Your task to perform on an android device: When is my next appointment? Image 0: 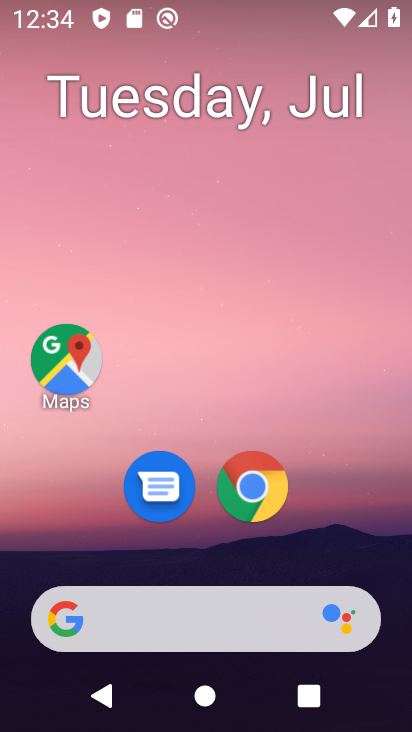
Step 0: drag from (329, 556) to (386, 83)
Your task to perform on an android device: When is my next appointment? Image 1: 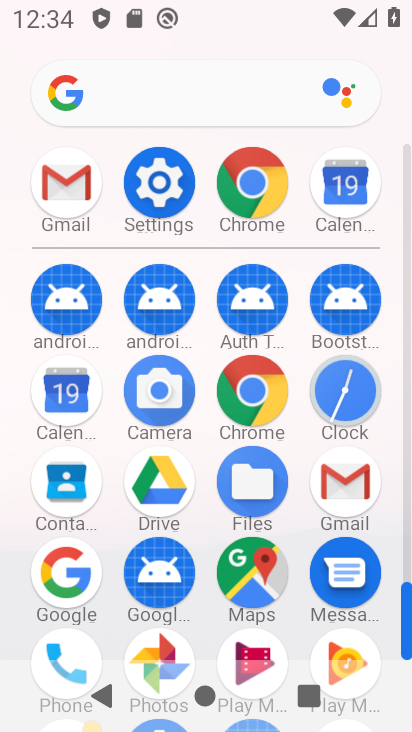
Step 1: click (61, 416)
Your task to perform on an android device: When is my next appointment? Image 2: 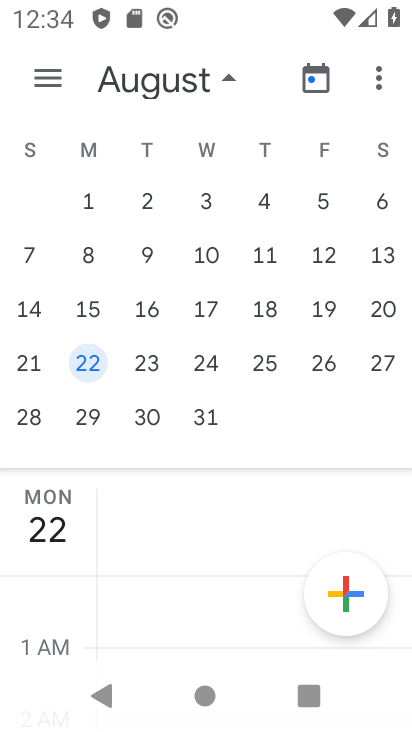
Step 2: drag from (164, 522) to (186, 270)
Your task to perform on an android device: When is my next appointment? Image 3: 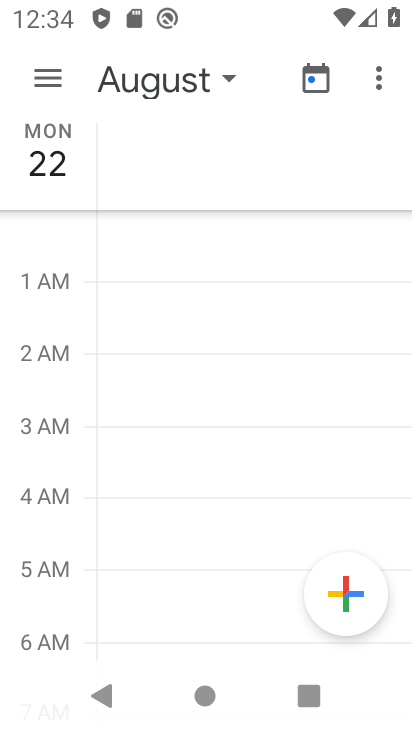
Step 3: drag from (185, 183) to (188, 492)
Your task to perform on an android device: When is my next appointment? Image 4: 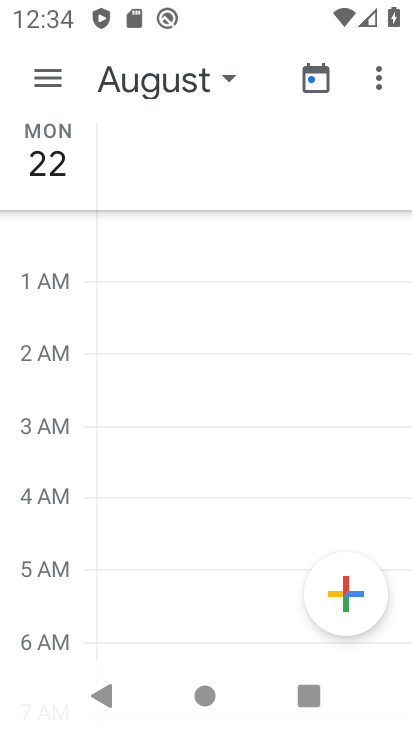
Step 4: click (43, 80)
Your task to perform on an android device: When is my next appointment? Image 5: 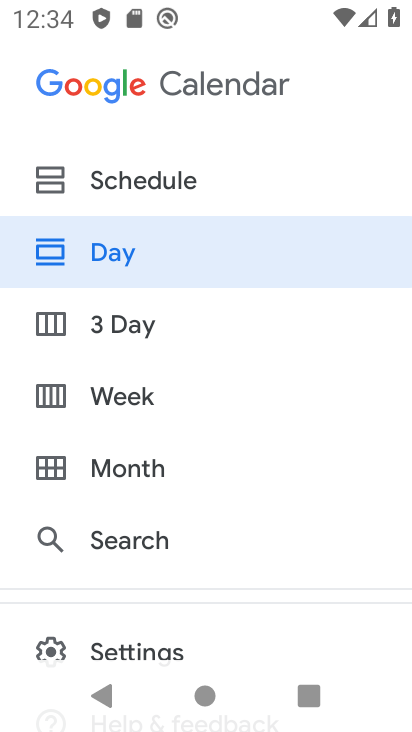
Step 5: click (163, 178)
Your task to perform on an android device: When is my next appointment? Image 6: 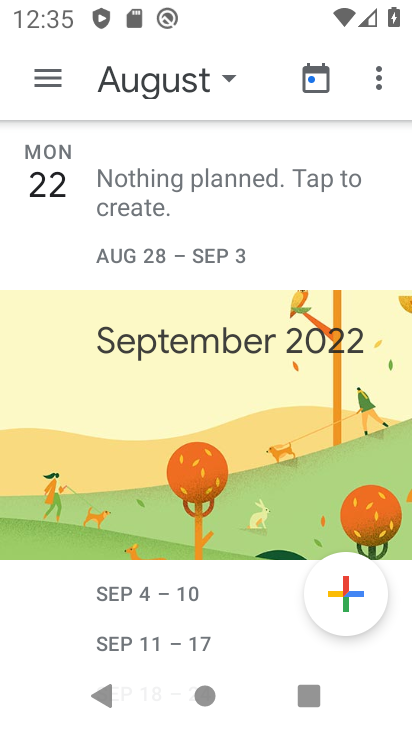
Step 6: task complete